Your task to perform on an android device: Empty the shopping cart on bestbuy.com. Add "usb-a" to the cart on bestbuy.com Image 0: 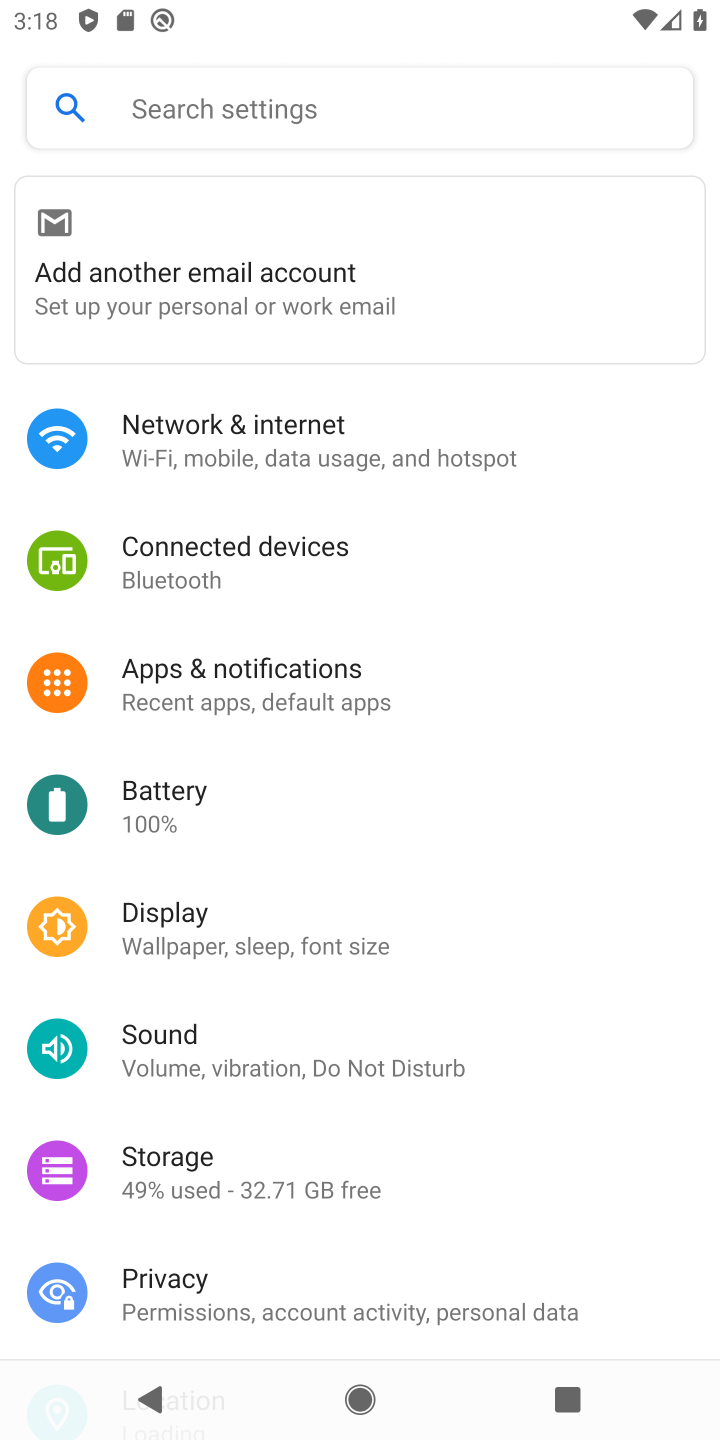
Step 0: press home button
Your task to perform on an android device: Empty the shopping cart on bestbuy.com. Add "usb-a" to the cart on bestbuy.com Image 1: 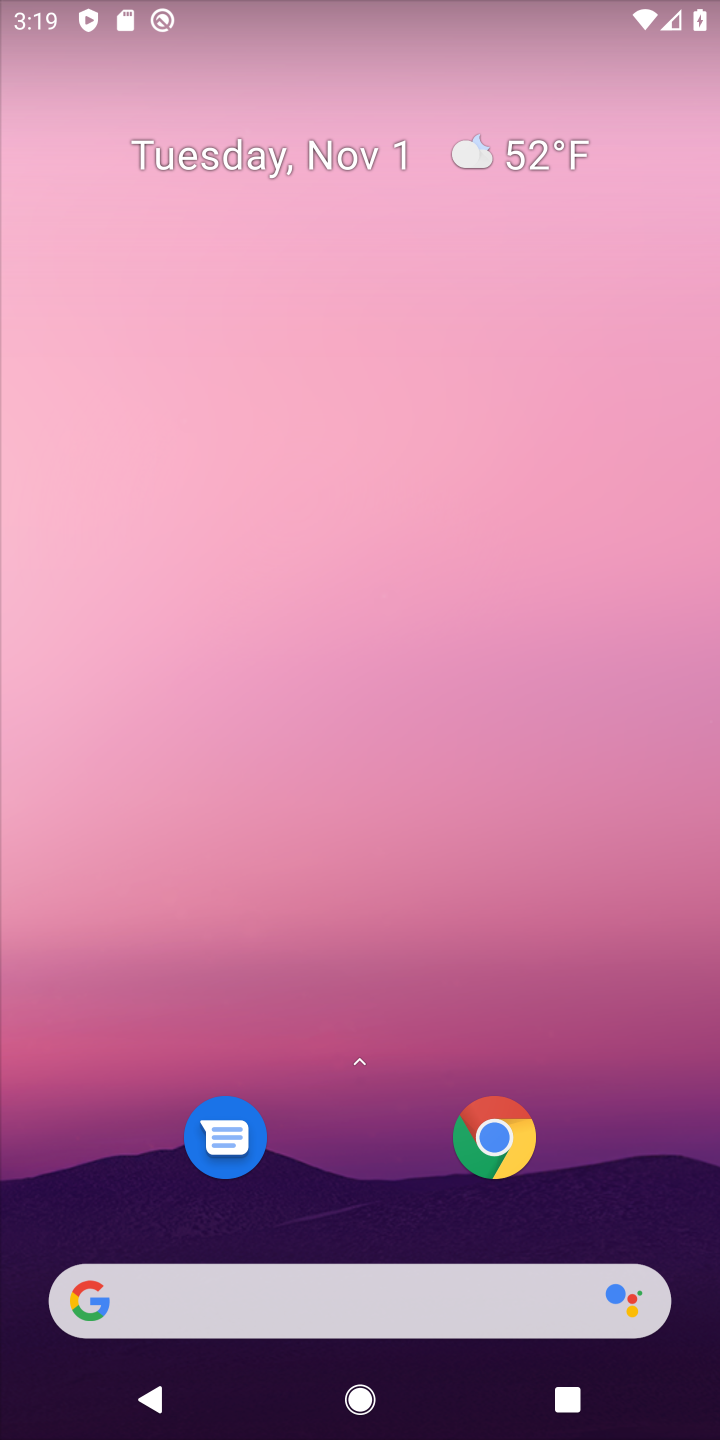
Step 1: click (320, 1303)
Your task to perform on an android device: Empty the shopping cart on bestbuy.com. Add "usb-a" to the cart on bestbuy.com Image 2: 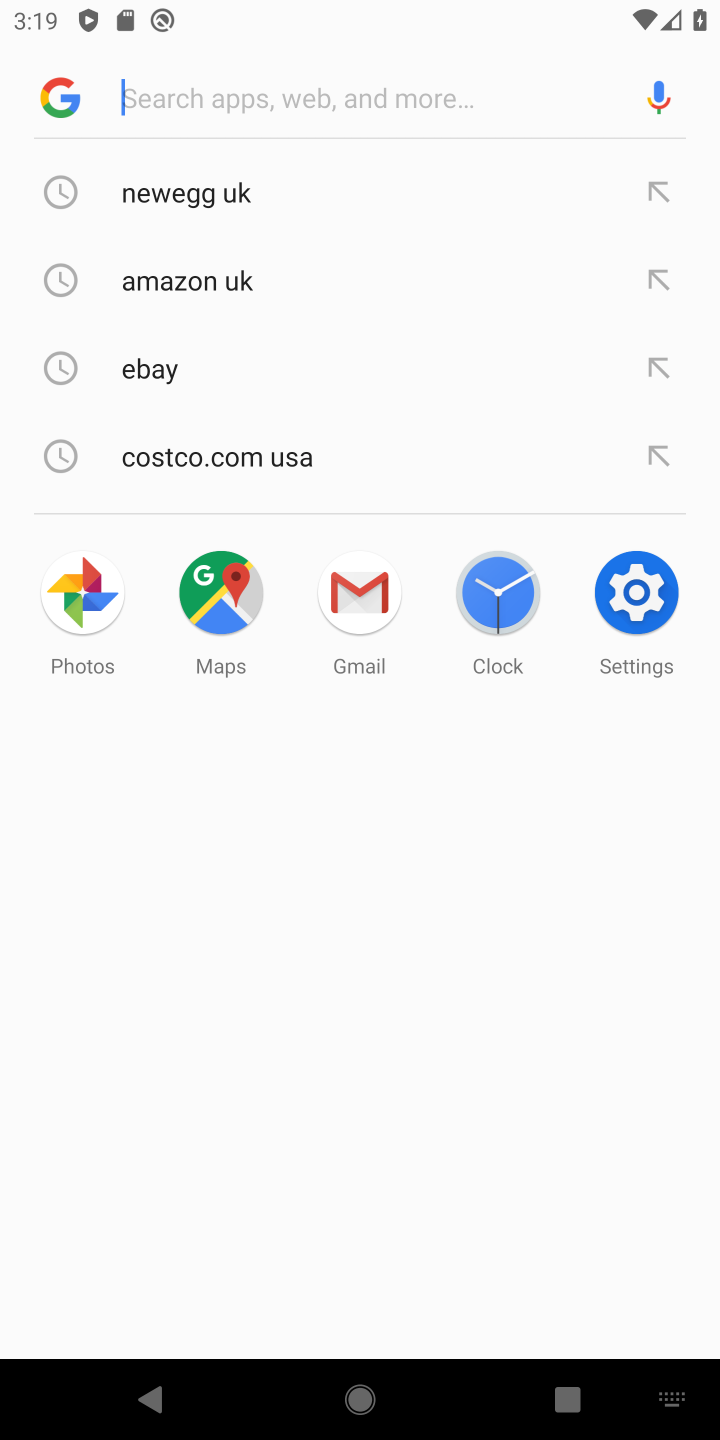
Step 2: type "bestbuy"
Your task to perform on an android device: Empty the shopping cart on bestbuy.com. Add "usb-a" to the cart on bestbuy.com Image 3: 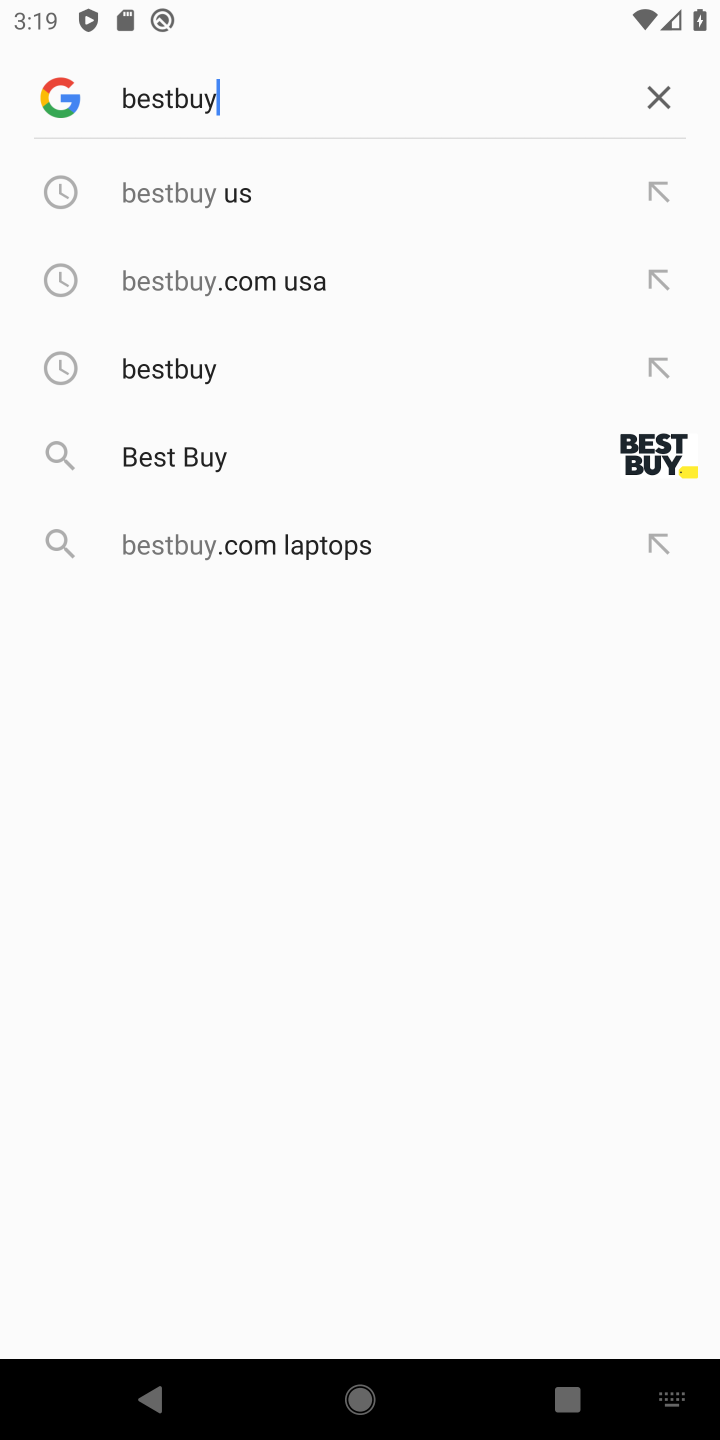
Step 3: click (195, 229)
Your task to perform on an android device: Empty the shopping cart on bestbuy.com. Add "usb-a" to the cart on bestbuy.com Image 4: 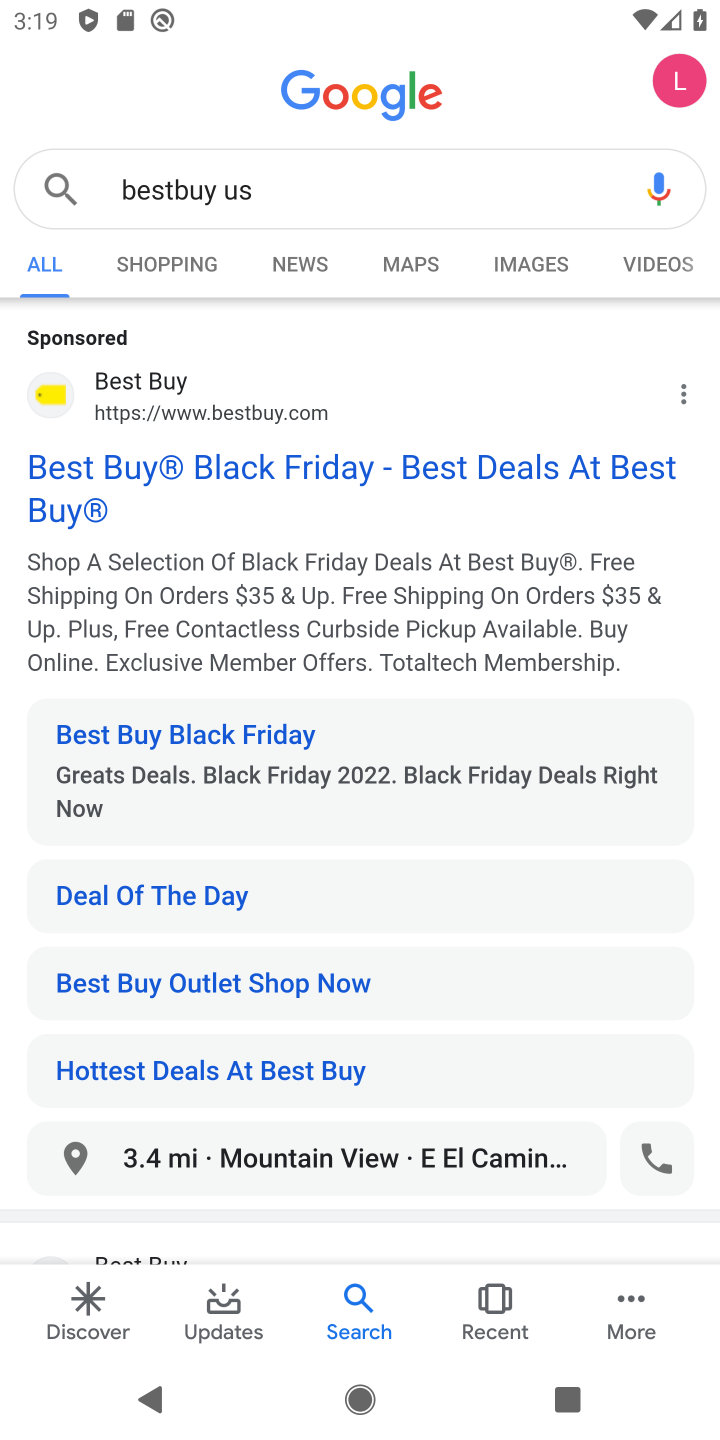
Step 4: click (257, 449)
Your task to perform on an android device: Empty the shopping cart on bestbuy.com. Add "usb-a" to the cart on bestbuy.com Image 5: 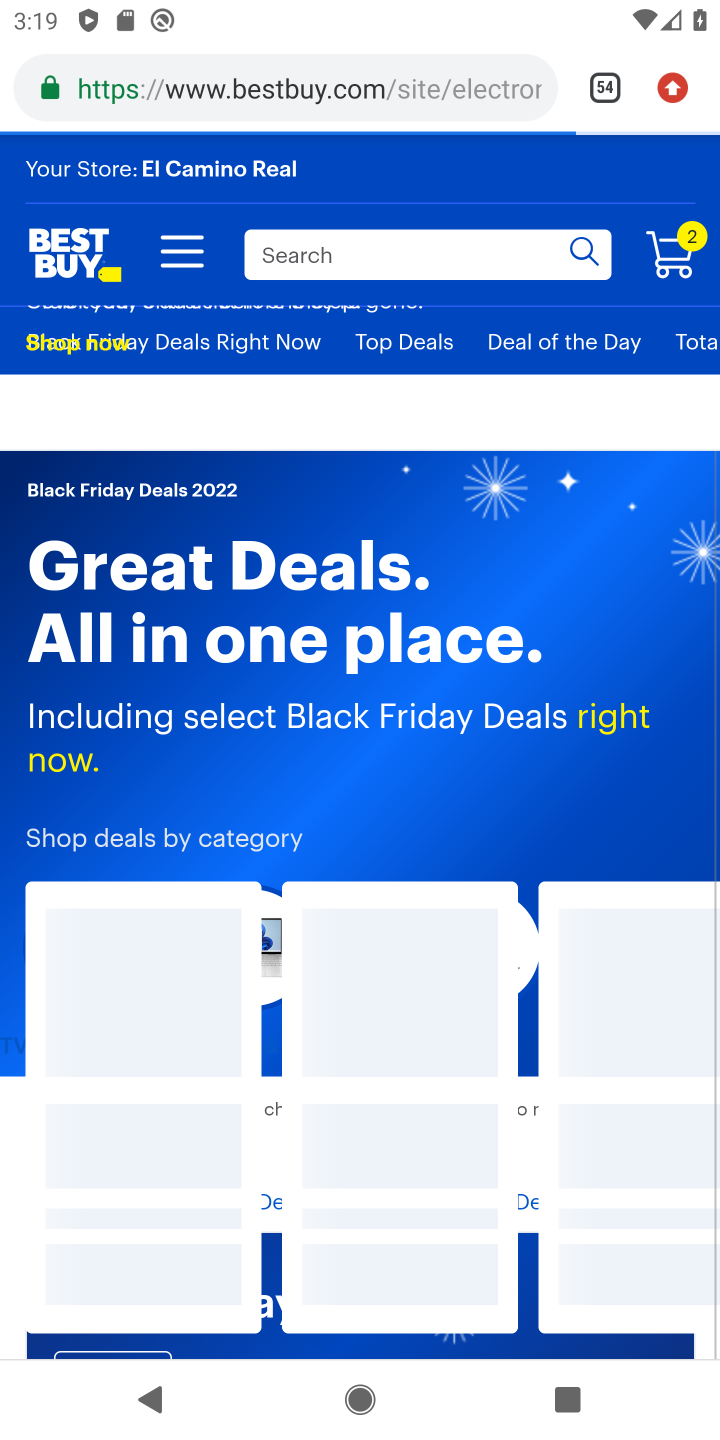
Step 5: task complete